Your task to perform on an android device: change the clock display to digital Image 0: 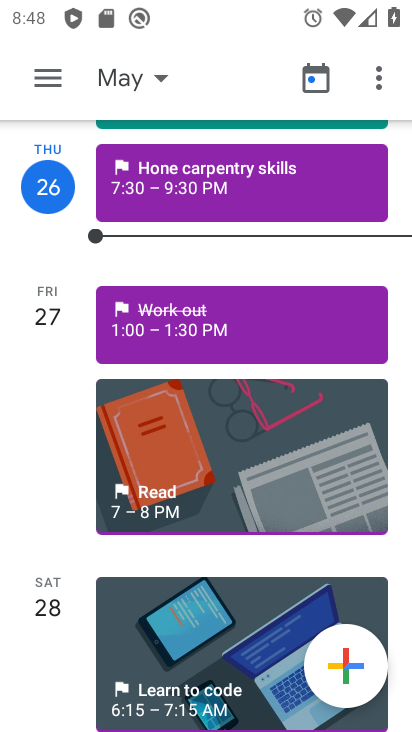
Step 0: press home button
Your task to perform on an android device: change the clock display to digital Image 1: 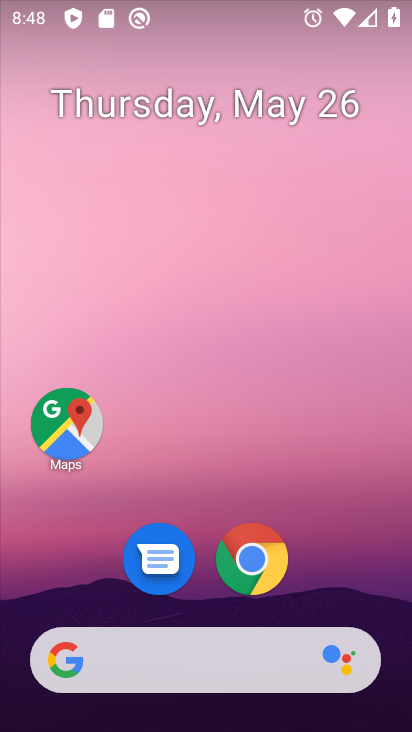
Step 1: drag from (197, 595) to (197, 137)
Your task to perform on an android device: change the clock display to digital Image 2: 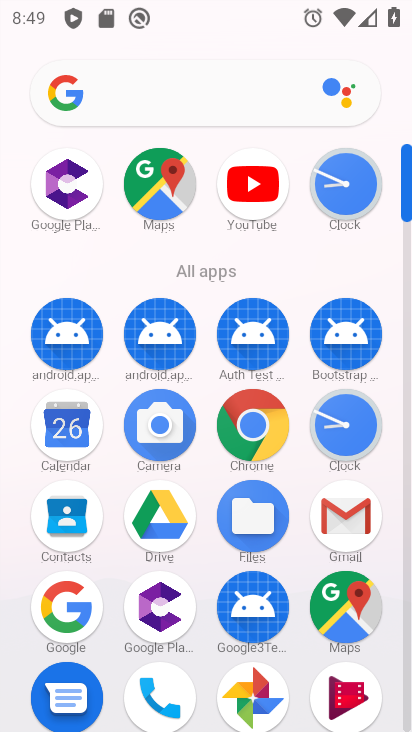
Step 2: click (348, 430)
Your task to perform on an android device: change the clock display to digital Image 3: 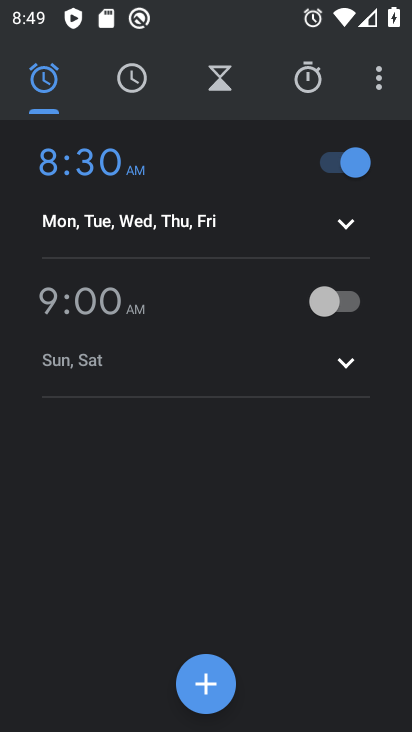
Step 3: click (364, 89)
Your task to perform on an android device: change the clock display to digital Image 4: 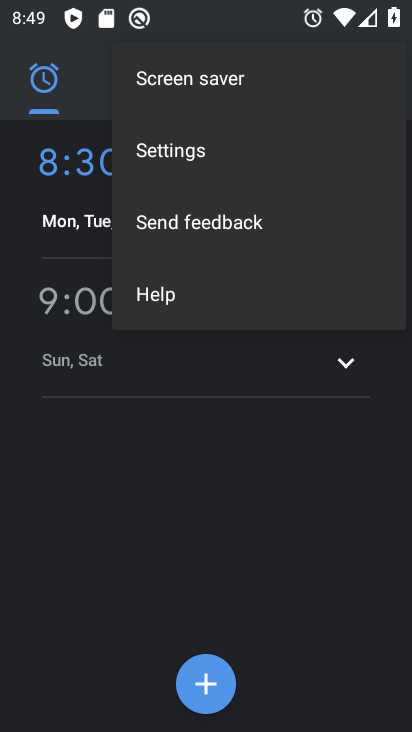
Step 4: click (217, 143)
Your task to perform on an android device: change the clock display to digital Image 5: 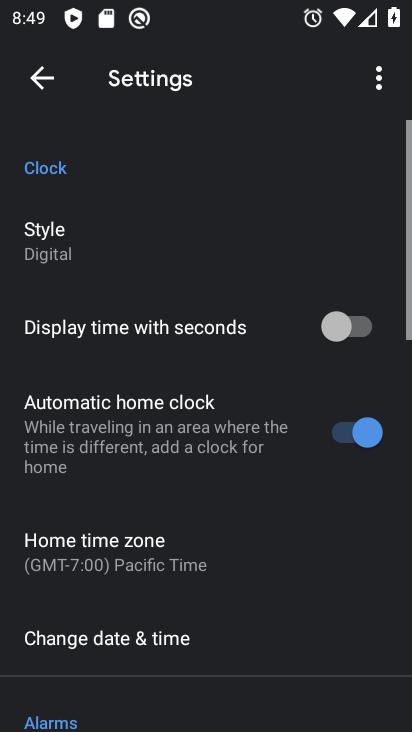
Step 5: click (93, 238)
Your task to perform on an android device: change the clock display to digital Image 6: 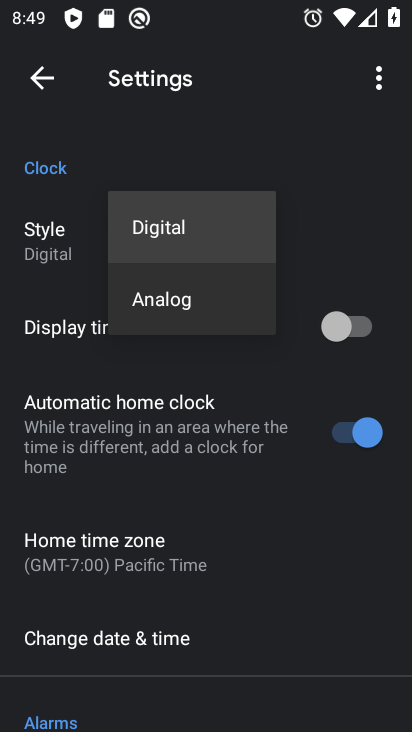
Step 6: task complete